Your task to perform on an android device: add a contact in the contacts app Image 0: 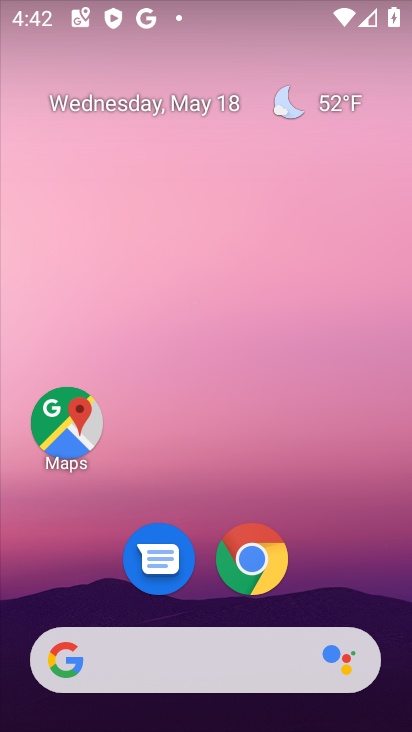
Step 0: drag from (207, 540) to (234, 74)
Your task to perform on an android device: add a contact in the contacts app Image 1: 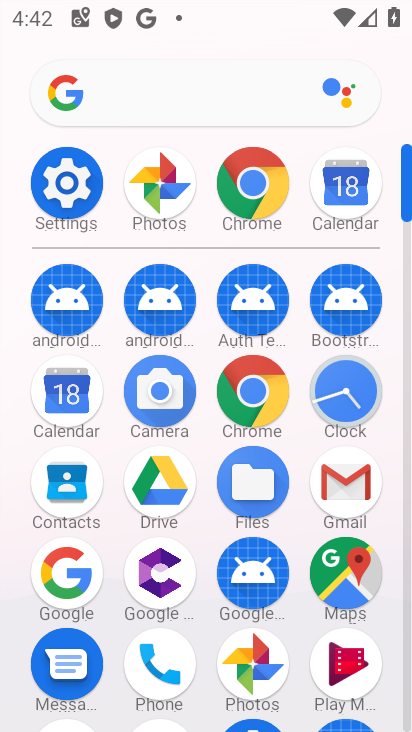
Step 1: click (56, 490)
Your task to perform on an android device: add a contact in the contacts app Image 2: 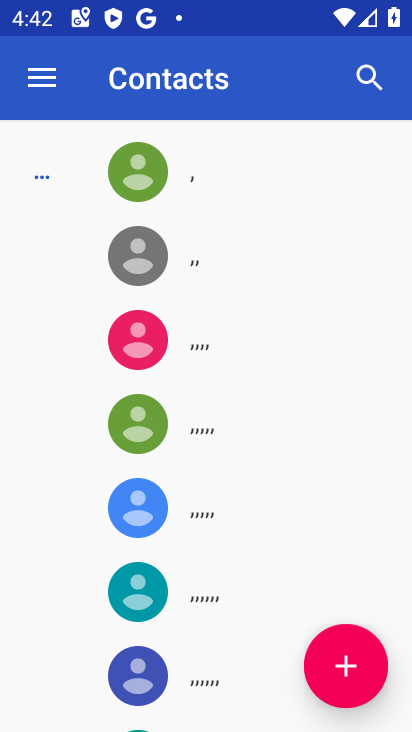
Step 2: click (338, 666)
Your task to perform on an android device: add a contact in the contacts app Image 3: 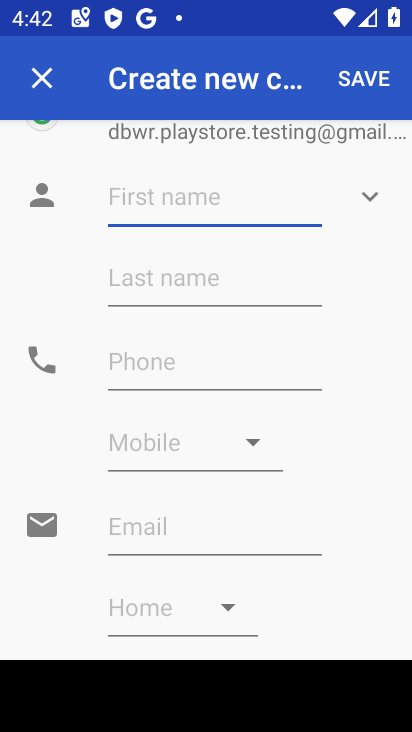
Step 3: click (123, 190)
Your task to perform on an android device: add a contact in the contacts app Image 4: 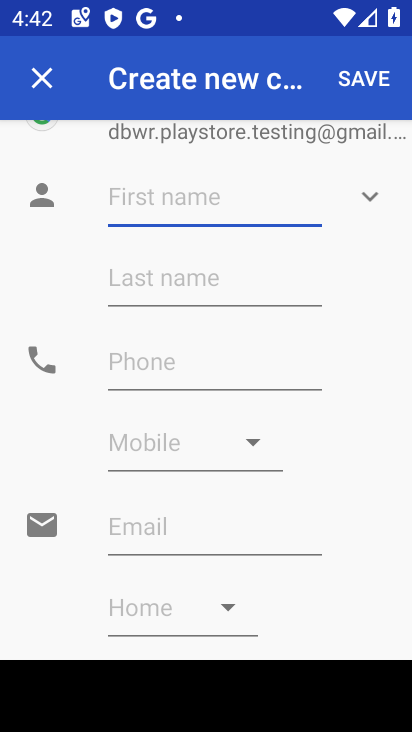
Step 4: type "hgf"
Your task to perform on an android device: add a contact in the contacts app Image 5: 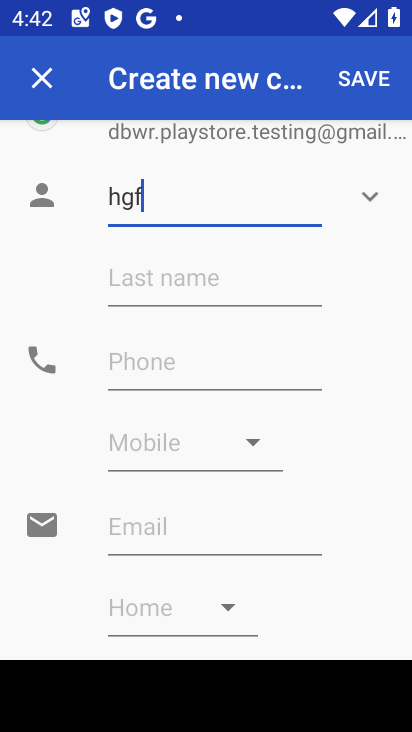
Step 5: click (141, 355)
Your task to perform on an android device: add a contact in the contacts app Image 6: 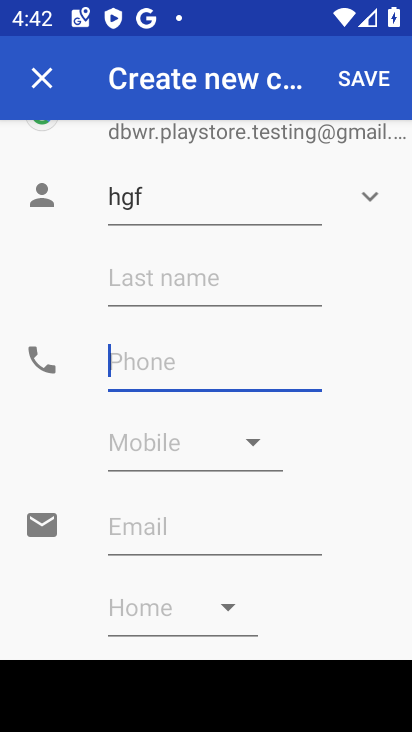
Step 6: type "686"
Your task to perform on an android device: add a contact in the contacts app Image 7: 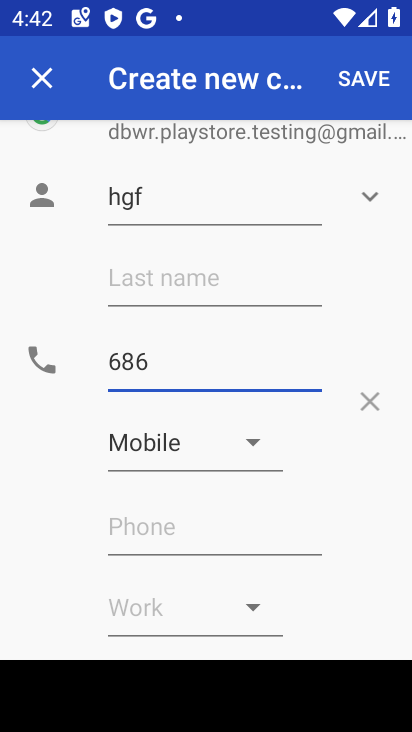
Step 7: click (348, 78)
Your task to perform on an android device: add a contact in the contacts app Image 8: 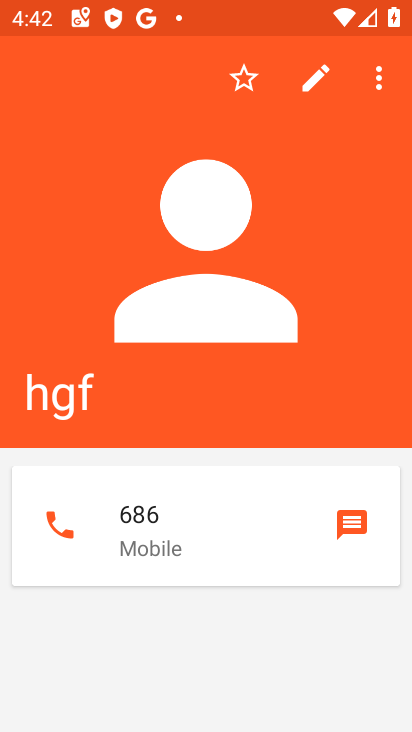
Step 8: task complete